Your task to perform on an android device: Go to wifi settings Image 0: 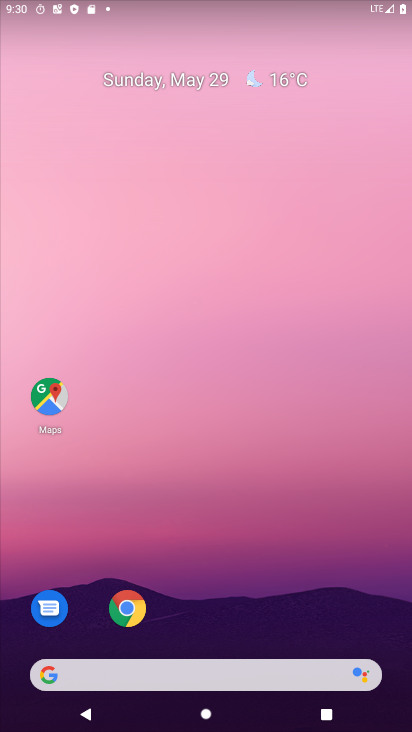
Step 0: drag from (179, 628) to (275, 115)
Your task to perform on an android device: Go to wifi settings Image 1: 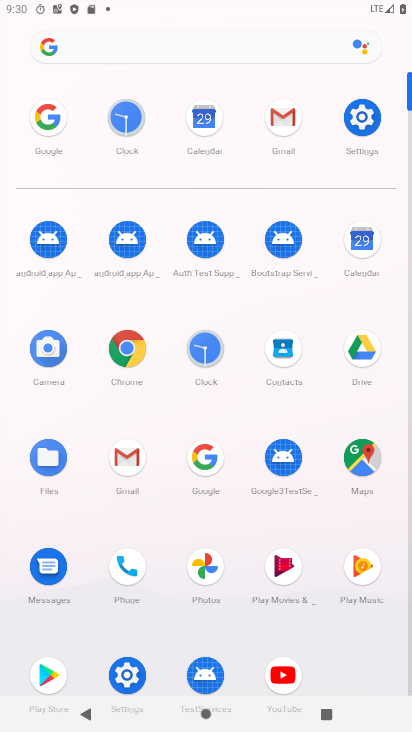
Step 1: click (359, 122)
Your task to perform on an android device: Go to wifi settings Image 2: 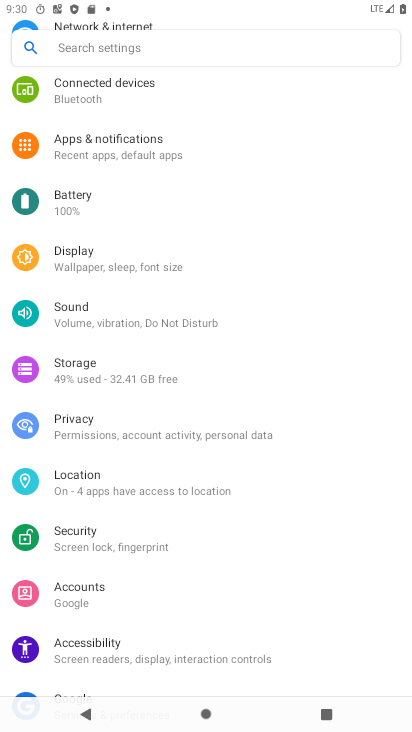
Step 2: drag from (166, 166) to (132, 584)
Your task to perform on an android device: Go to wifi settings Image 3: 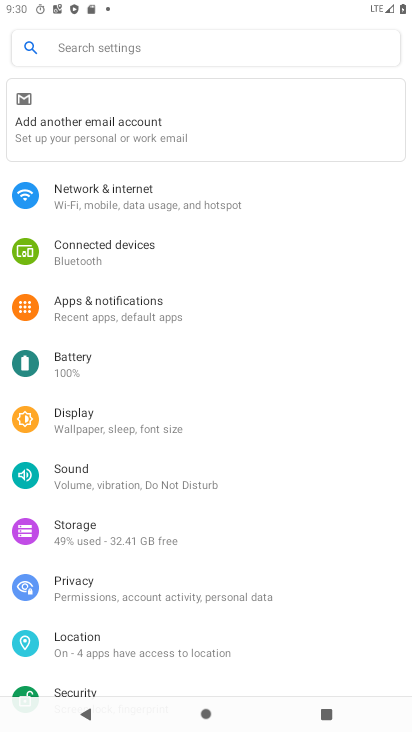
Step 3: click (104, 194)
Your task to perform on an android device: Go to wifi settings Image 4: 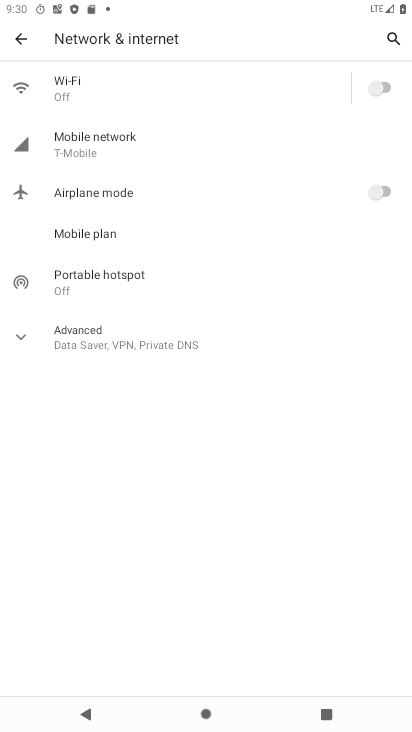
Step 4: click (147, 90)
Your task to perform on an android device: Go to wifi settings Image 5: 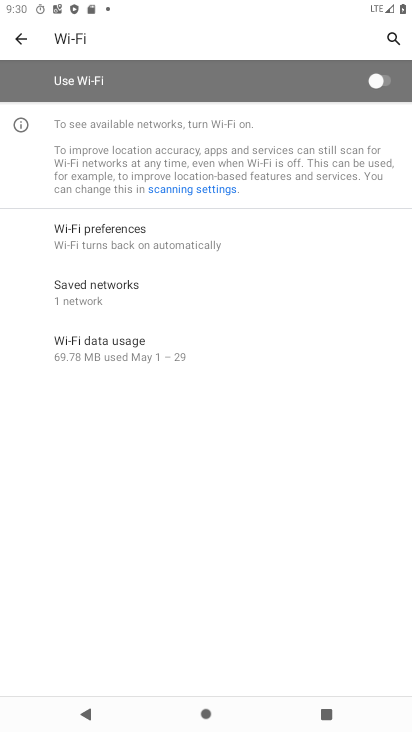
Step 5: task complete